Your task to perform on an android device: turn on the 24-hour format for clock Image 0: 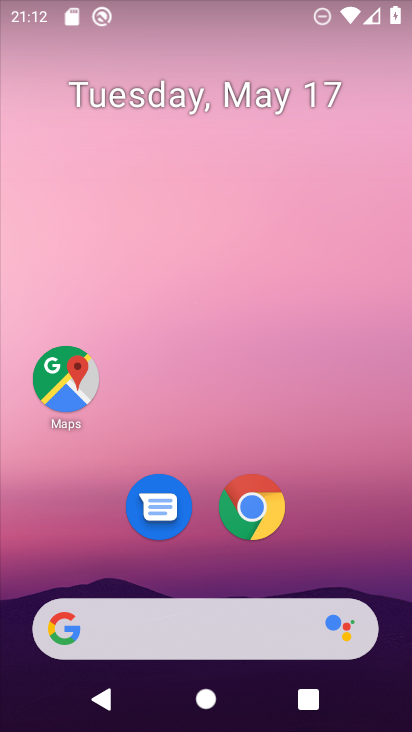
Step 0: drag from (378, 567) to (311, 41)
Your task to perform on an android device: turn on the 24-hour format for clock Image 1: 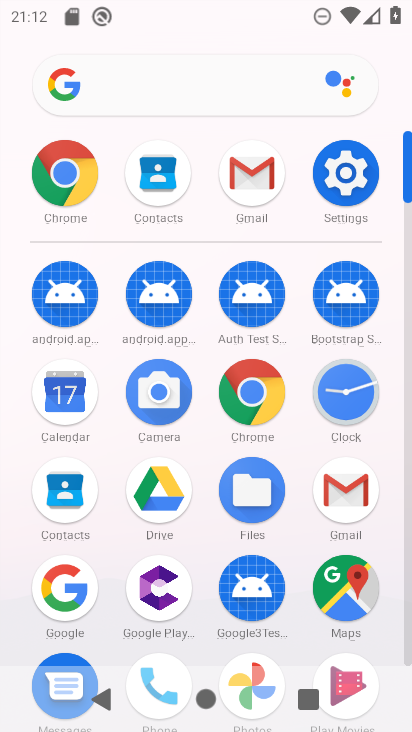
Step 1: click (341, 415)
Your task to perform on an android device: turn on the 24-hour format for clock Image 2: 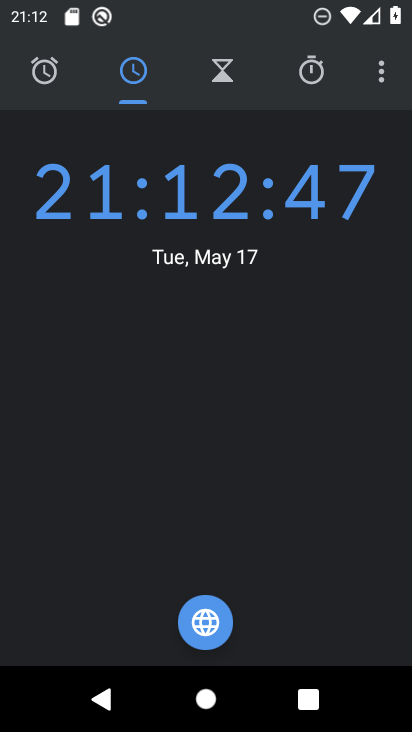
Step 2: click (378, 74)
Your task to perform on an android device: turn on the 24-hour format for clock Image 3: 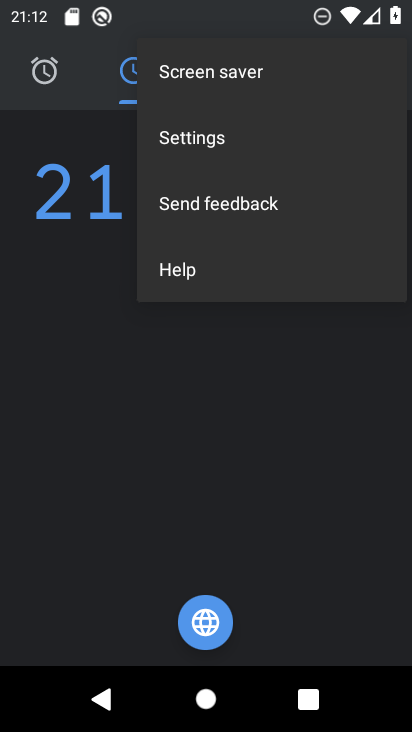
Step 3: click (169, 143)
Your task to perform on an android device: turn on the 24-hour format for clock Image 4: 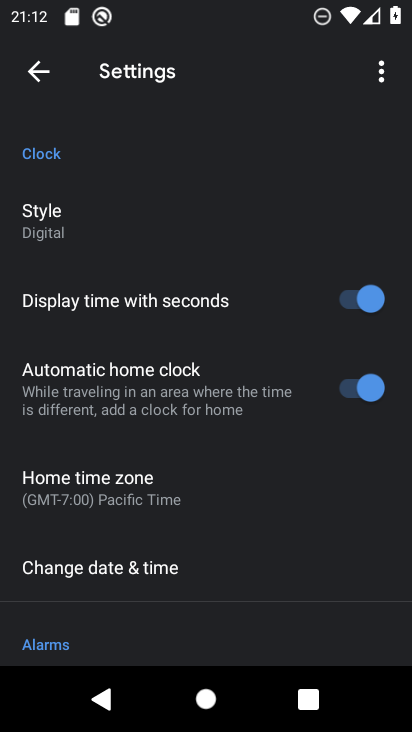
Step 4: click (84, 566)
Your task to perform on an android device: turn on the 24-hour format for clock Image 5: 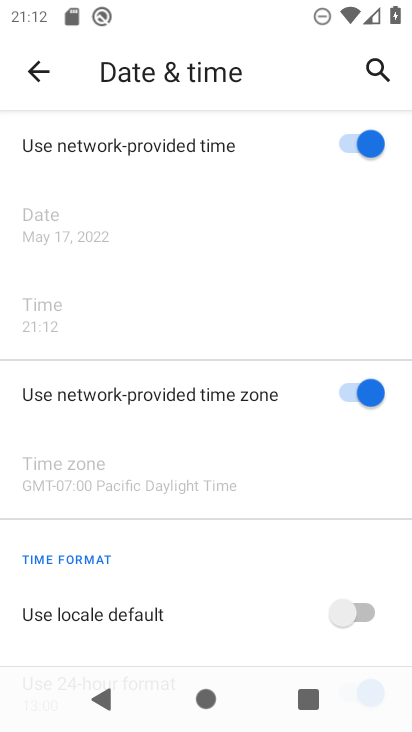
Step 5: task complete